Your task to perform on an android device: star an email in the gmail app Image 0: 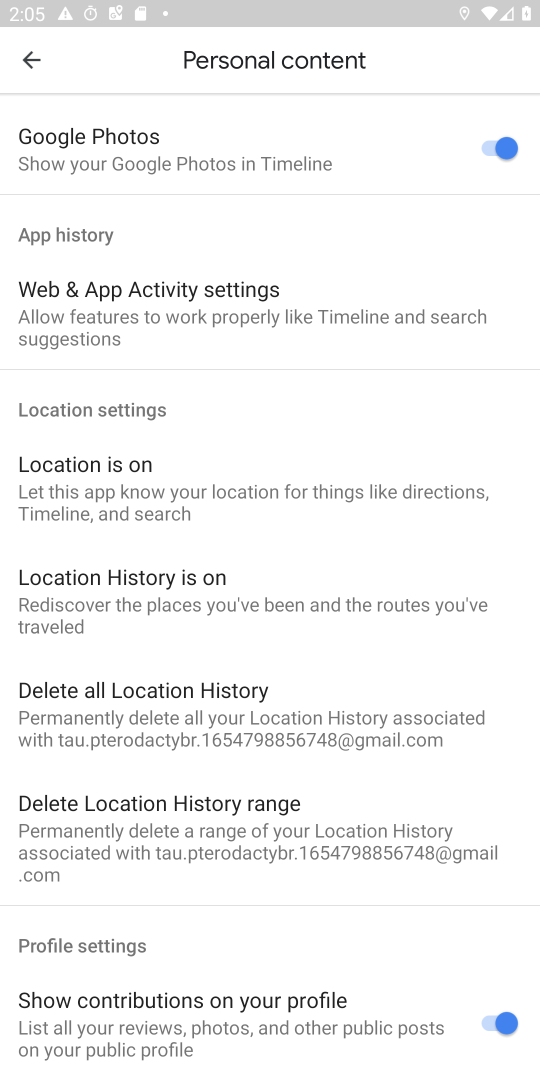
Step 0: press home button
Your task to perform on an android device: star an email in the gmail app Image 1: 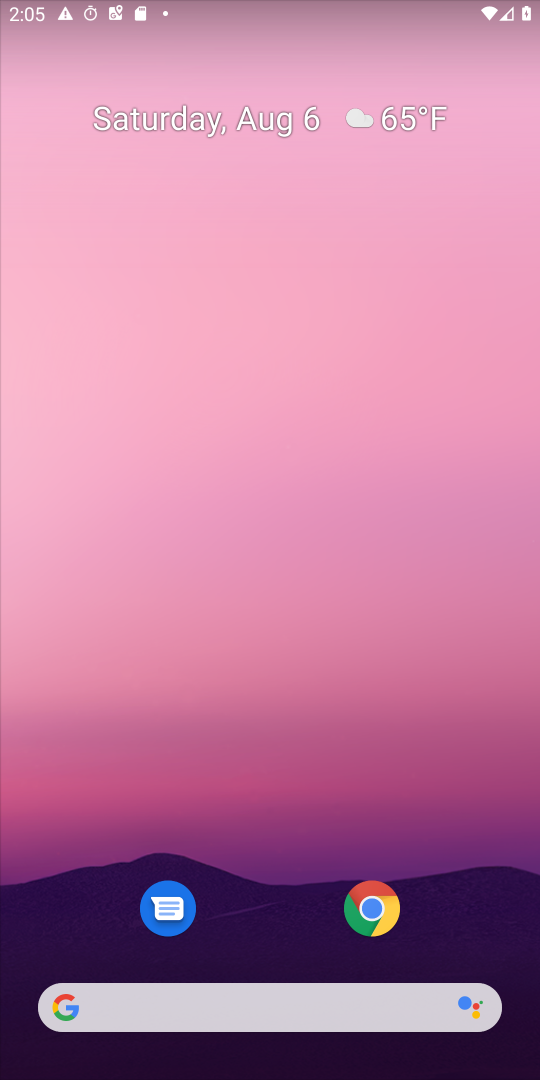
Step 1: drag from (274, 783) to (313, 9)
Your task to perform on an android device: star an email in the gmail app Image 2: 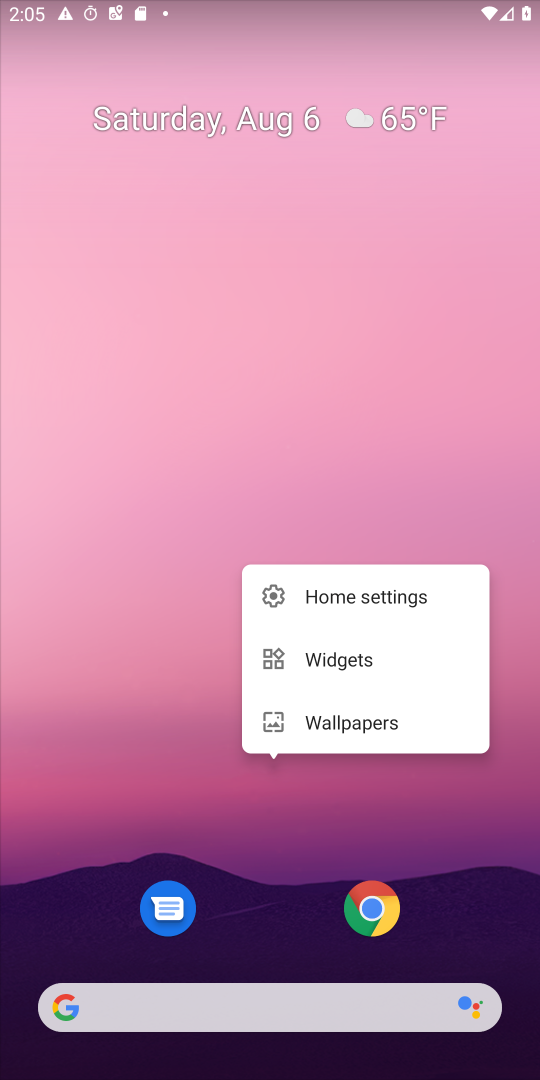
Step 2: click (172, 540)
Your task to perform on an android device: star an email in the gmail app Image 3: 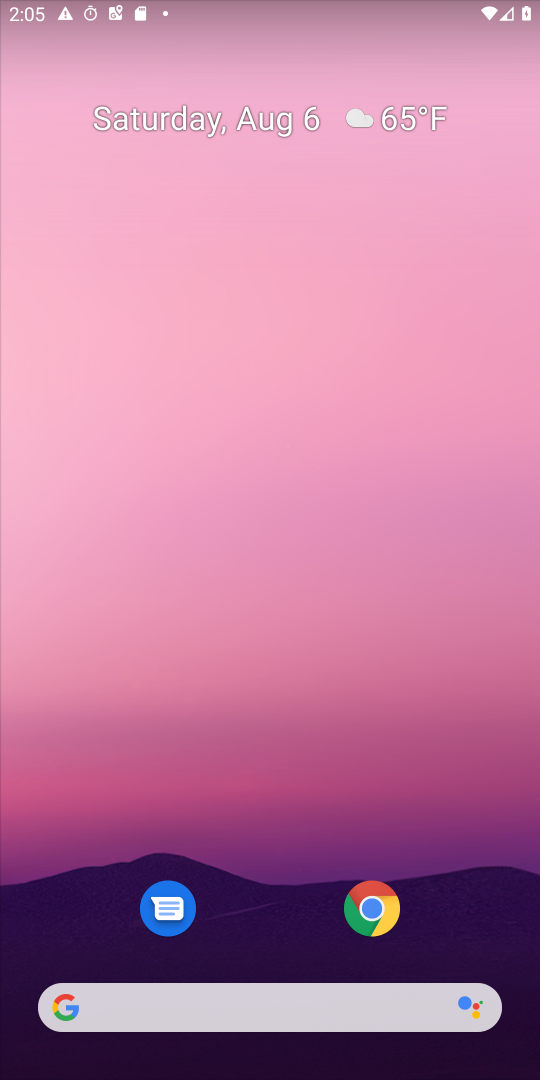
Step 3: drag from (238, 967) to (209, 170)
Your task to perform on an android device: star an email in the gmail app Image 4: 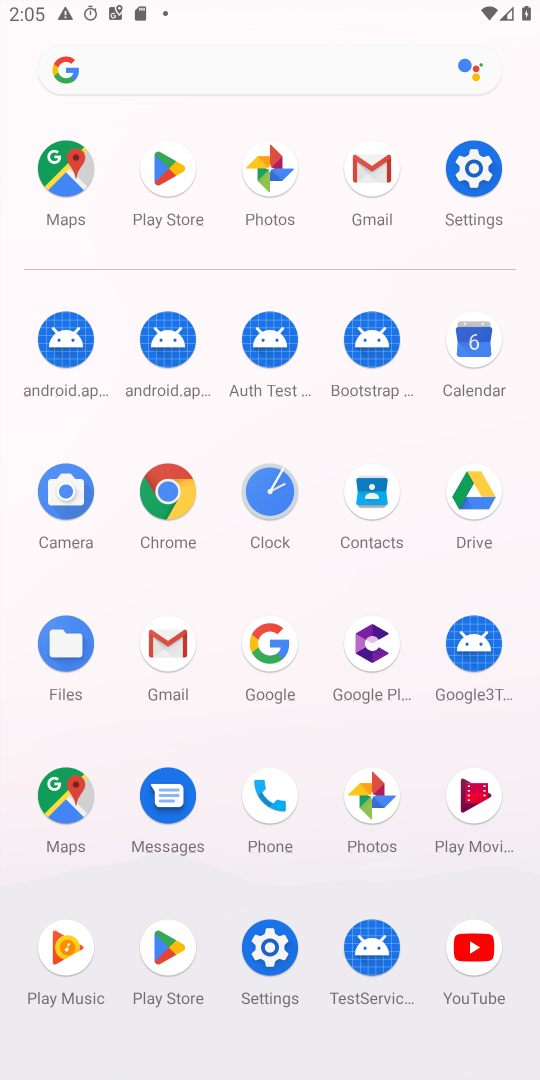
Step 4: click (161, 635)
Your task to perform on an android device: star an email in the gmail app Image 5: 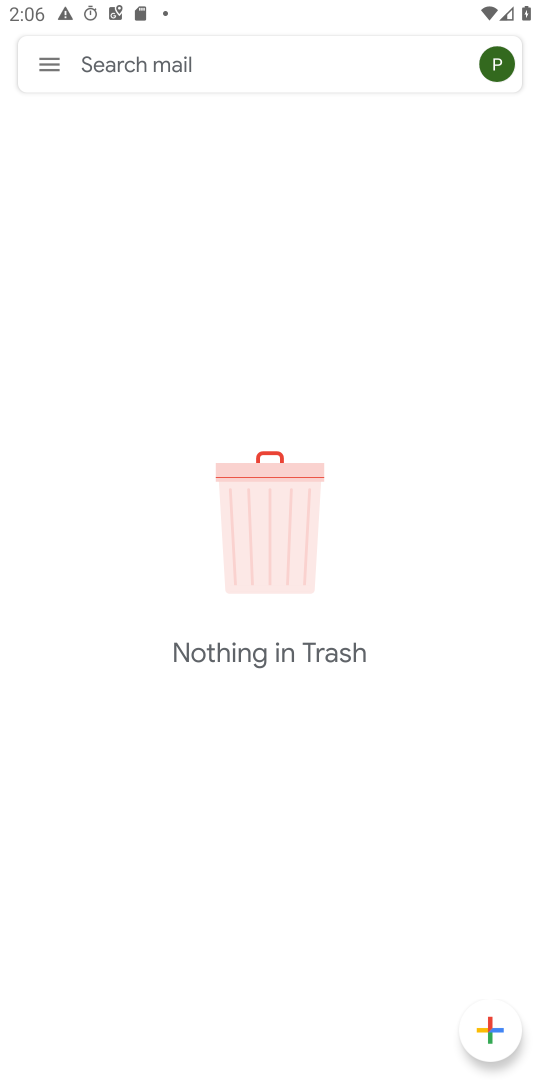
Step 5: click (58, 69)
Your task to perform on an android device: star an email in the gmail app Image 6: 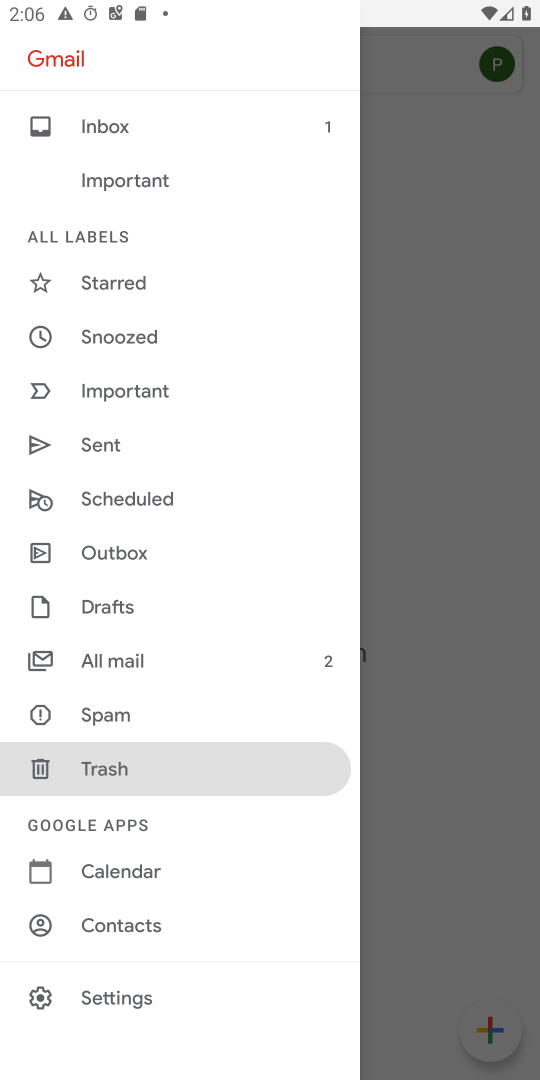
Step 6: click (177, 651)
Your task to perform on an android device: star an email in the gmail app Image 7: 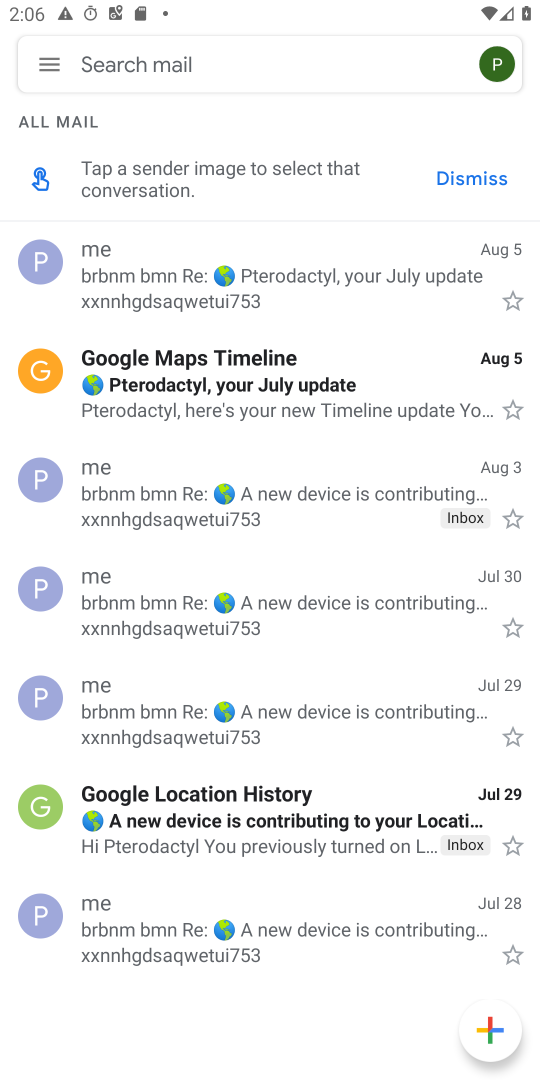
Step 7: click (509, 295)
Your task to perform on an android device: star an email in the gmail app Image 8: 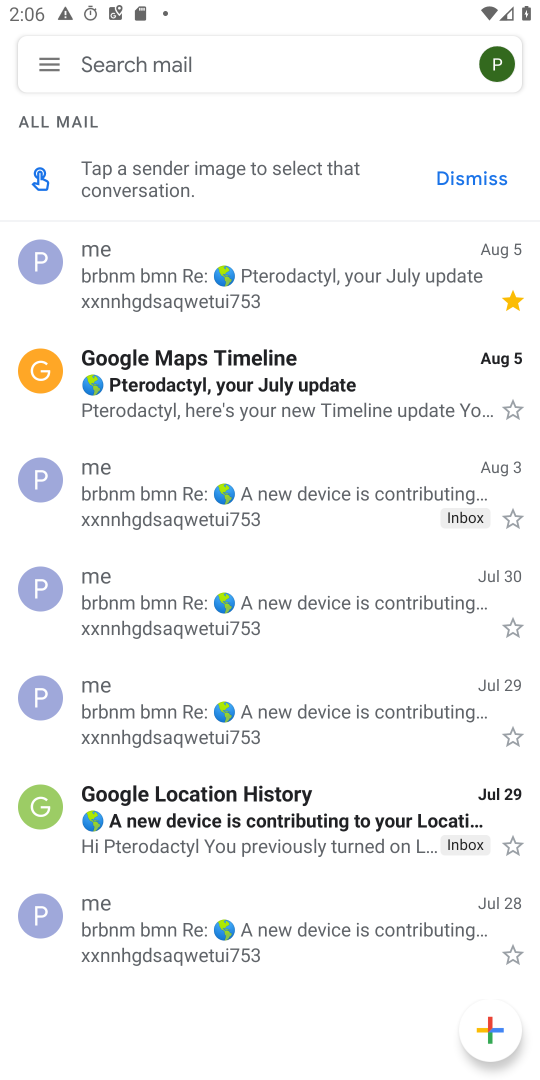
Step 8: task complete